Your task to perform on an android device: Search for sushi restaurants on Maps Image 0: 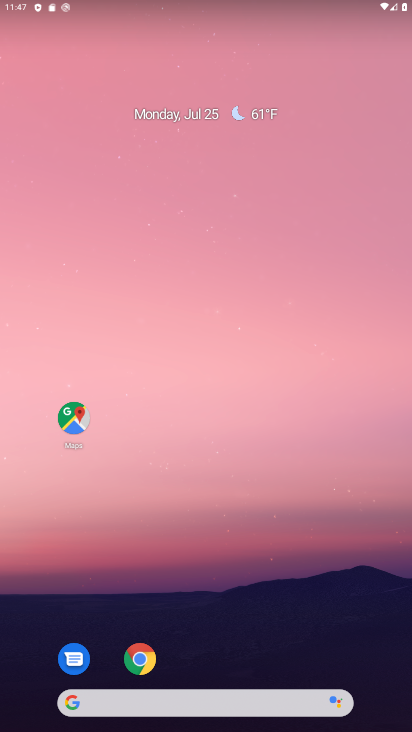
Step 0: drag from (198, 687) to (226, 105)
Your task to perform on an android device: Search for sushi restaurants on Maps Image 1: 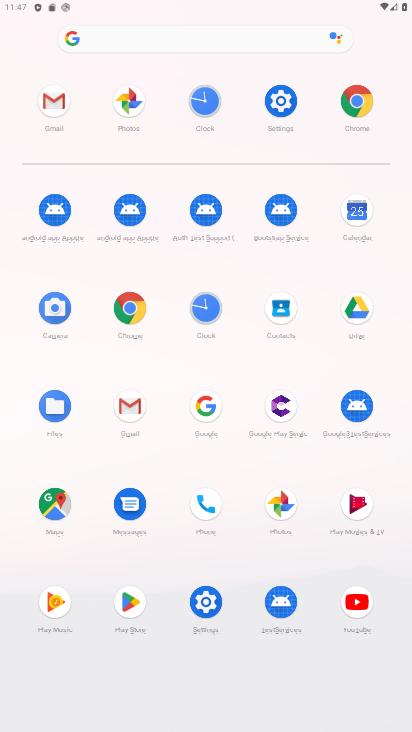
Step 1: click (46, 497)
Your task to perform on an android device: Search for sushi restaurants on Maps Image 2: 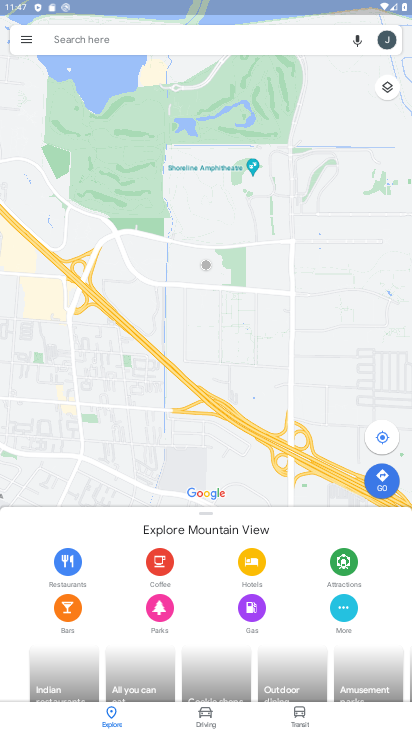
Step 2: click (270, 38)
Your task to perform on an android device: Search for sushi restaurants on Maps Image 3: 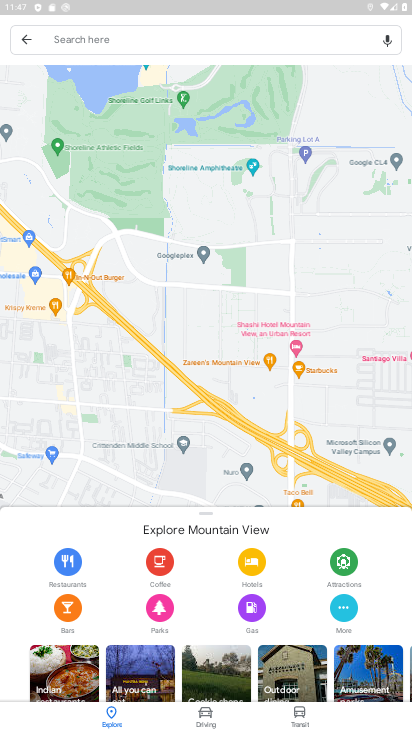
Step 3: click (196, 37)
Your task to perform on an android device: Search for sushi restaurants on Maps Image 4: 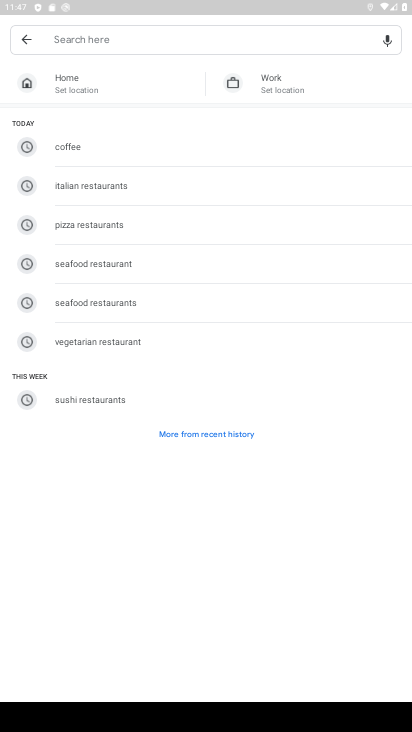
Step 4: type "sushi restaurants"
Your task to perform on an android device: Search for sushi restaurants on Maps Image 5: 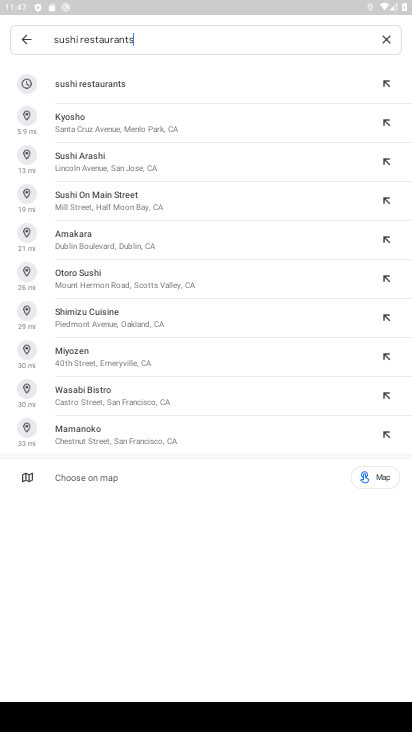
Step 5: click (95, 85)
Your task to perform on an android device: Search for sushi restaurants on Maps Image 6: 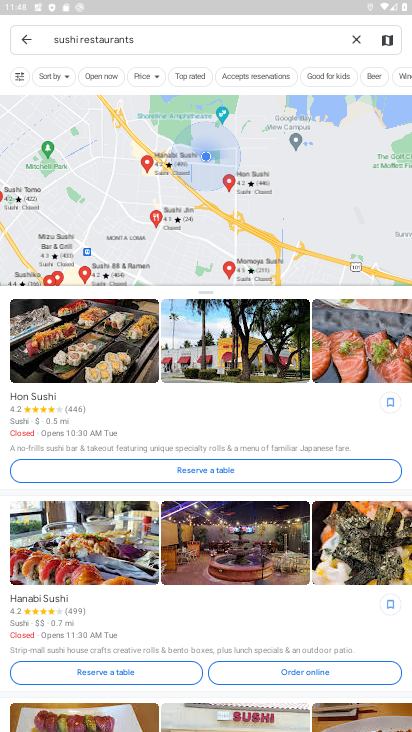
Step 6: task complete